Your task to perform on an android device: add a label to a message in the gmail app Image 0: 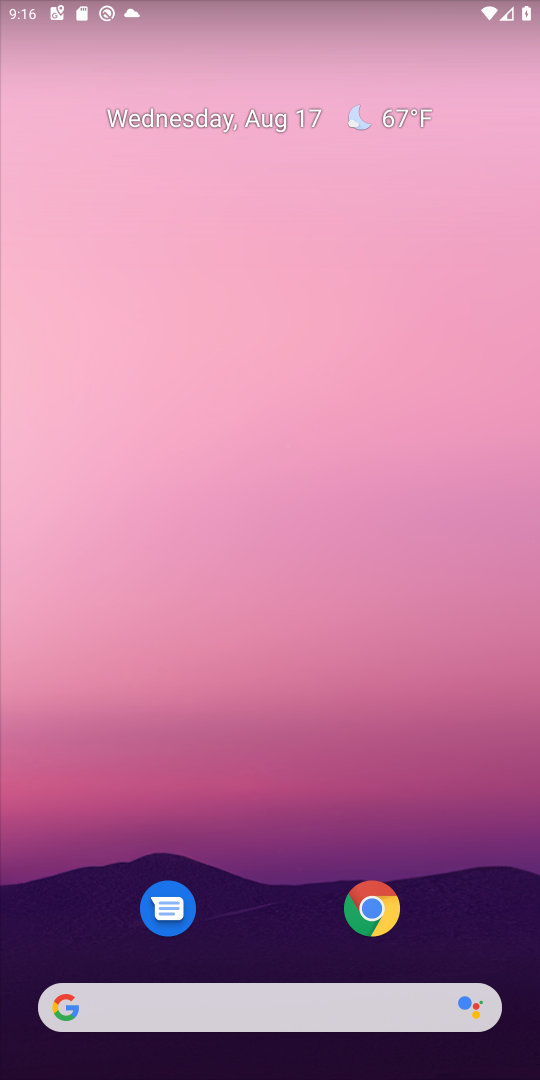
Step 0: drag from (255, 858) to (290, 260)
Your task to perform on an android device: add a label to a message in the gmail app Image 1: 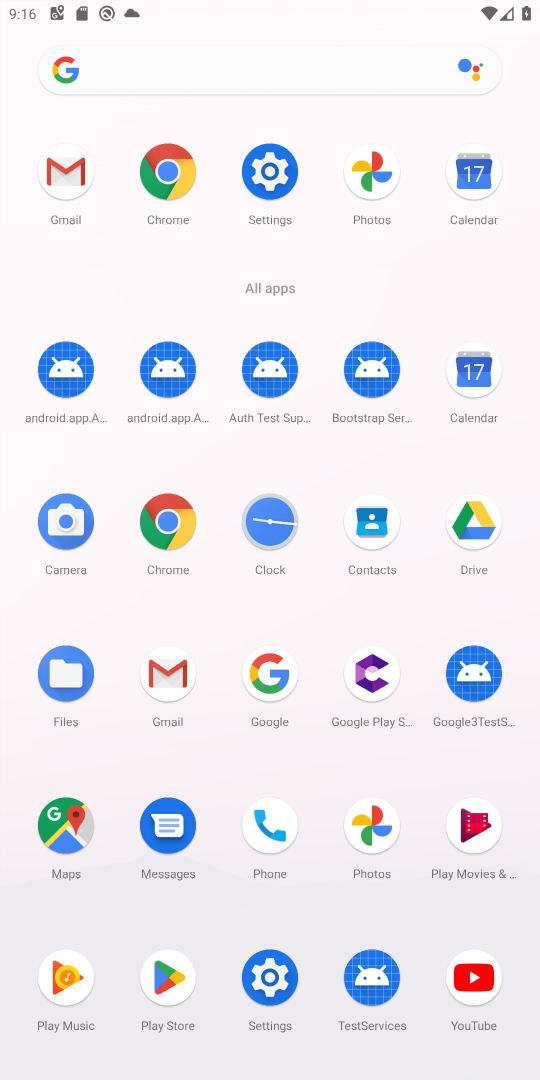
Step 1: click (163, 677)
Your task to perform on an android device: add a label to a message in the gmail app Image 2: 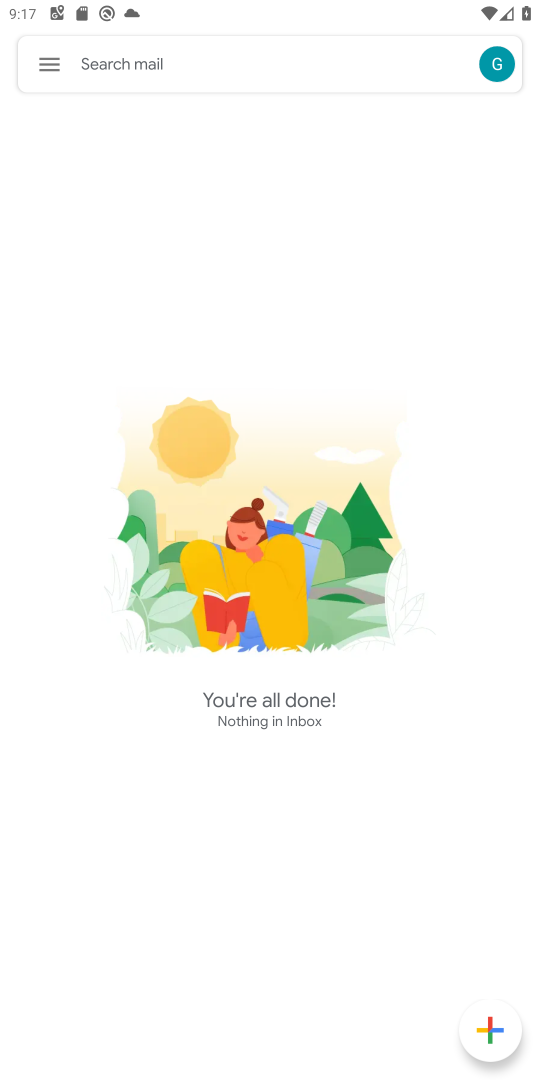
Step 2: task complete